Your task to perform on an android device: turn on wifi Image 0: 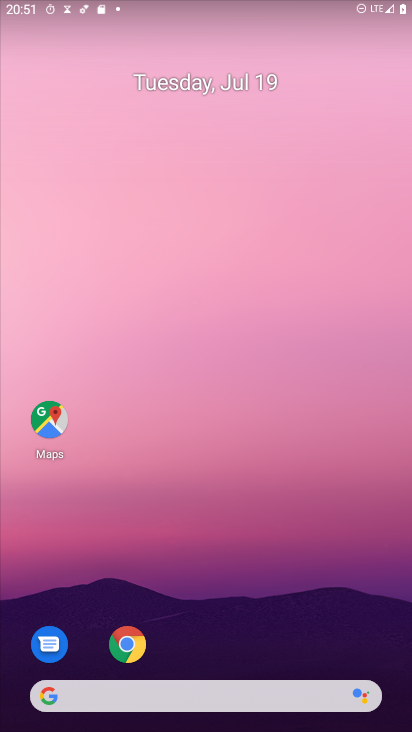
Step 0: drag from (4, 720) to (281, 96)
Your task to perform on an android device: turn on wifi Image 1: 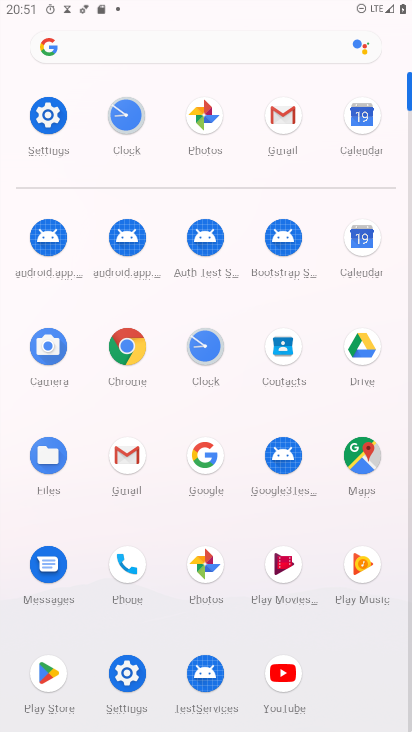
Step 1: click (125, 679)
Your task to perform on an android device: turn on wifi Image 2: 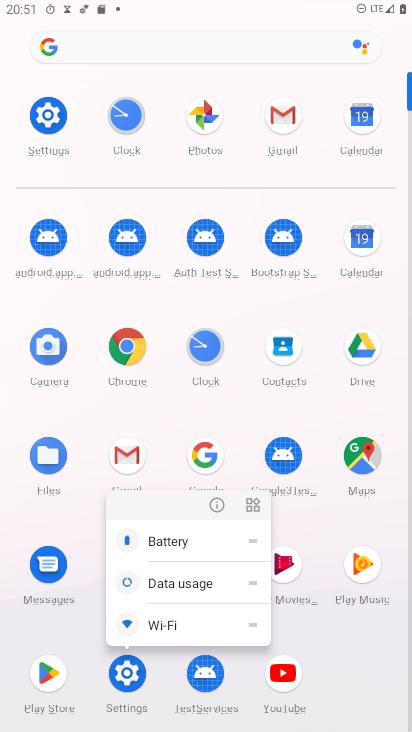
Step 2: click (135, 668)
Your task to perform on an android device: turn on wifi Image 3: 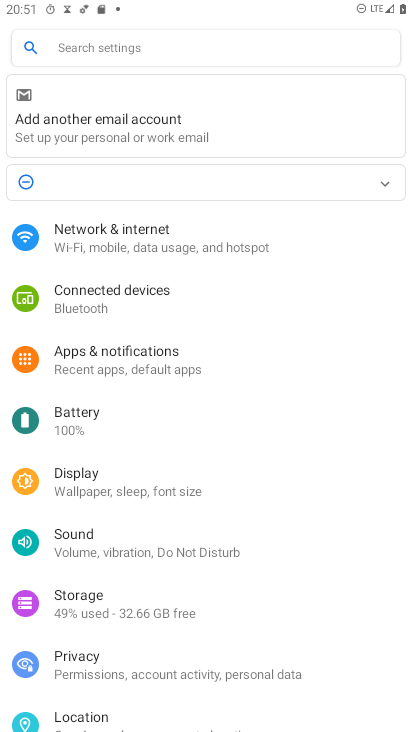
Step 3: click (156, 241)
Your task to perform on an android device: turn on wifi Image 4: 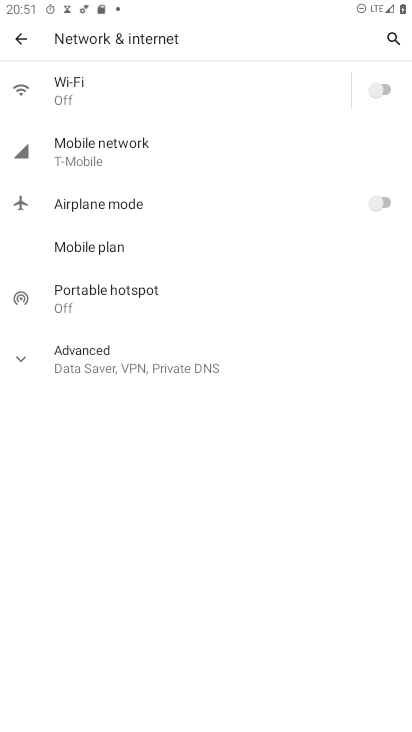
Step 4: click (371, 91)
Your task to perform on an android device: turn on wifi Image 5: 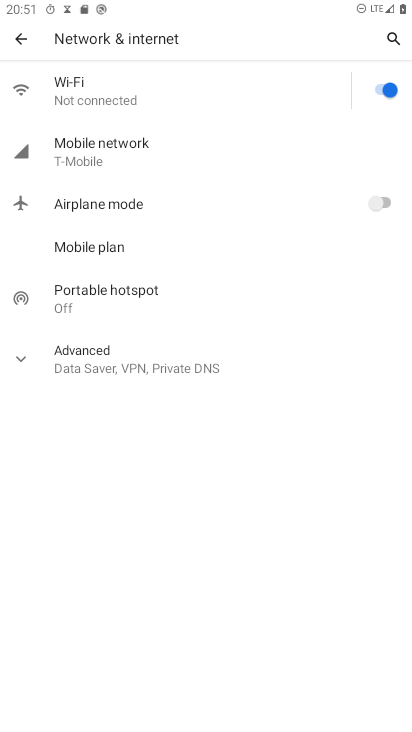
Step 5: task complete